Your task to perform on an android device: Search for the best rated 3d printer on Amazon. Image 0: 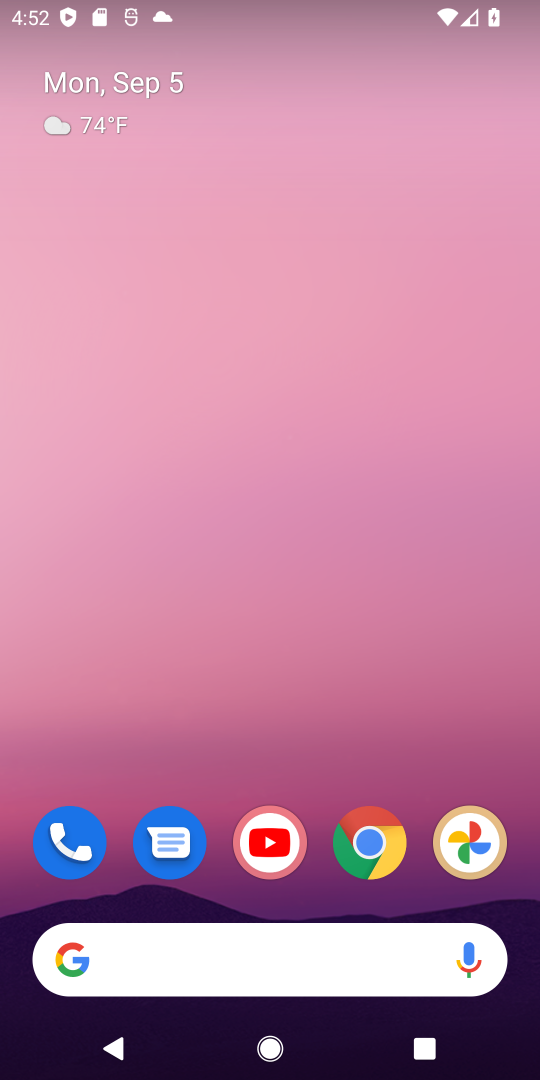
Step 0: click (362, 845)
Your task to perform on an android device: Search for the best rated 3d printer on Amazon. Image 1: 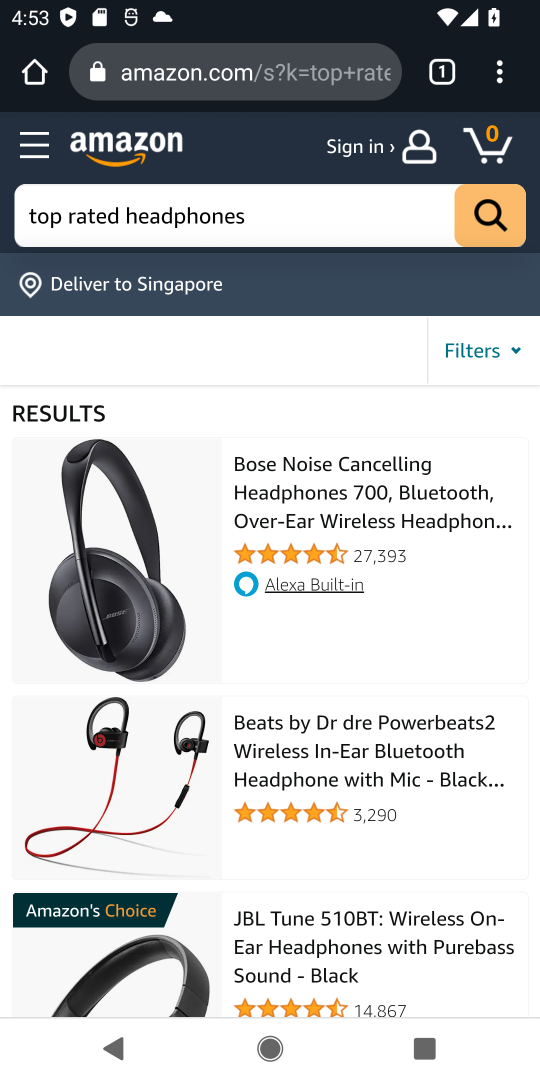
Step 1: click (315, 232)
Your task to perform on an android device: Search for the best rated 3d printer on Amazon. Image 2: 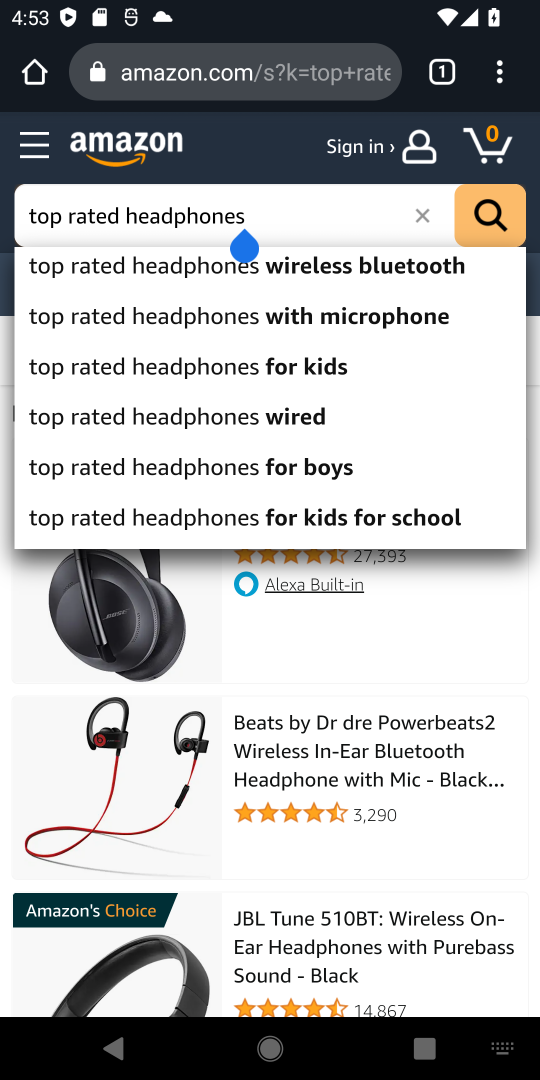
Step 2: click (421, 219)
Your task to perform on an android device: Search for the best rated 3d printer on Amazon. Image 3: 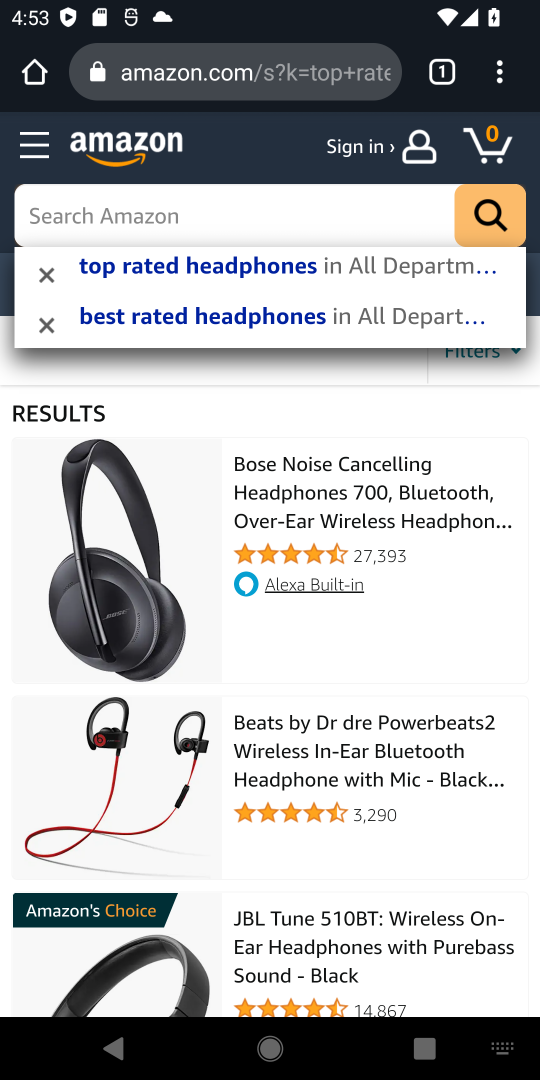
Step 3: type "best rated 3d printer"
Your task to perform on an android device: Search for the best rated 3d printer on Amazon. Image 4: 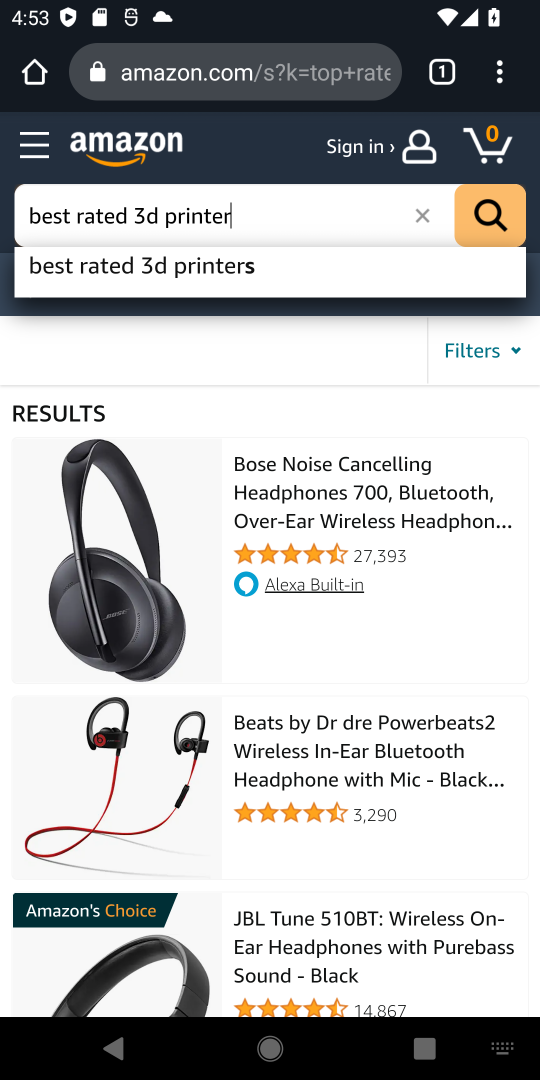
Step 4: click (156, 274)
Your task to perform on an android device: Search for the best rated 3d printer on Amazon. Image 5: 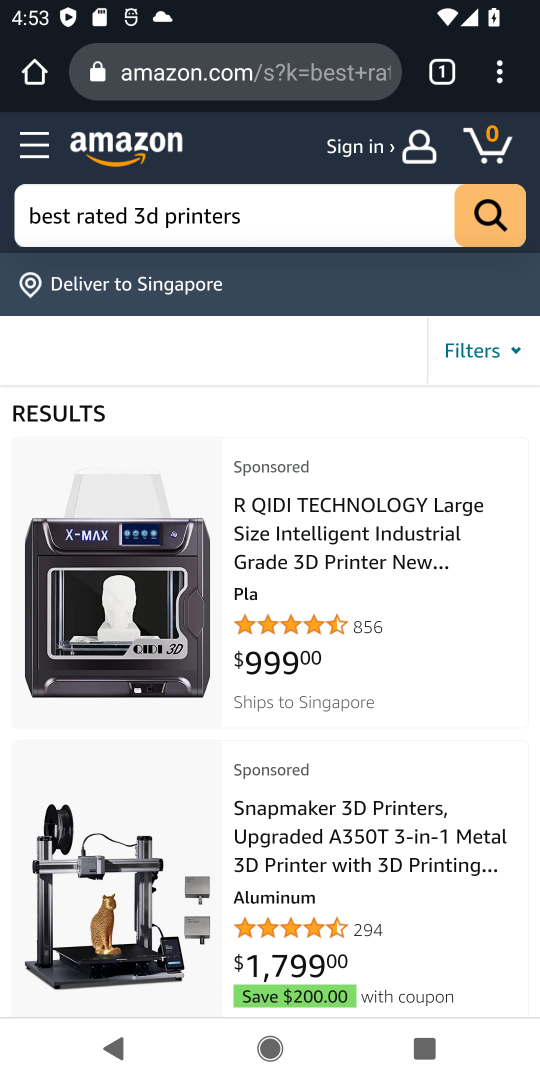
Step 5: task complete